Your task to perform on an android device: set default search engine in the chrome app Image 0: 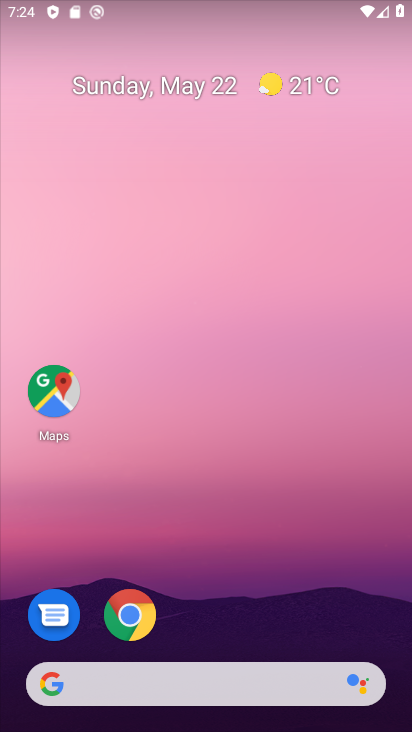
Step 0: drag from (257, 620) to (271, 304)
Your task to perform on an android device: set default search engine in the chrome app Image 1: 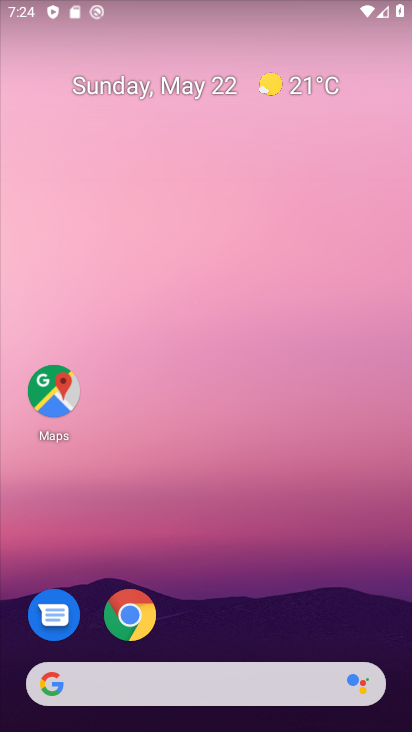
Step 1: drag from (266, 628) to (299, 122)
Your task to perform on an android device: set default search engine in the chrome app Image 2: 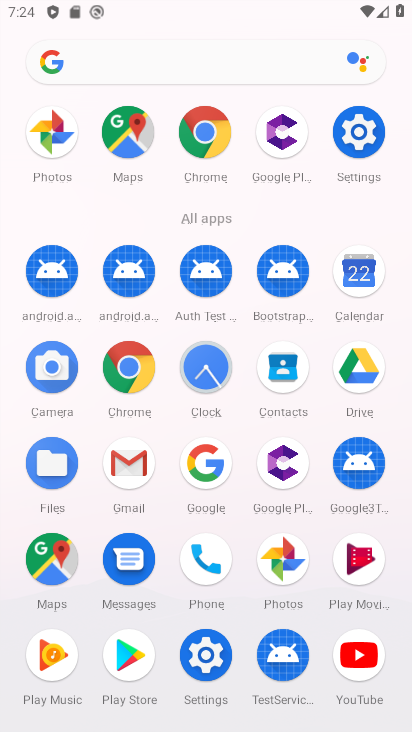
Step 2: click (196, 122)
Your task to perform on an android device: set default search engine in the chrome app Image 3: 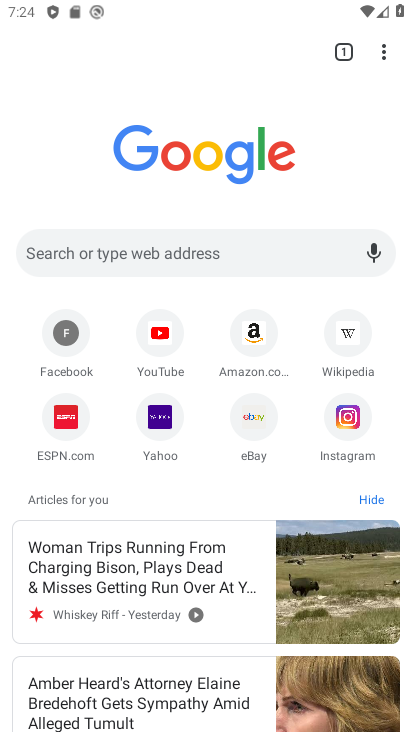
Step 3: click (383, 52)
Your task to perform on an android device: set default search engine in the chrome app Image 4: 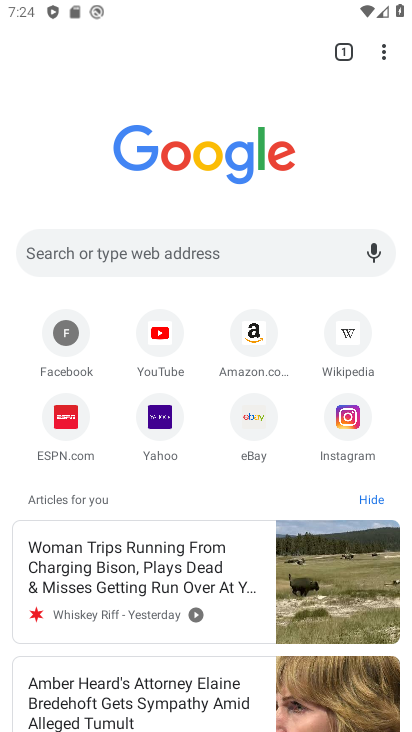
Step 4: click (383, 52)
Your task to perform on an android device: set default search engine in the chrome app Image 5: 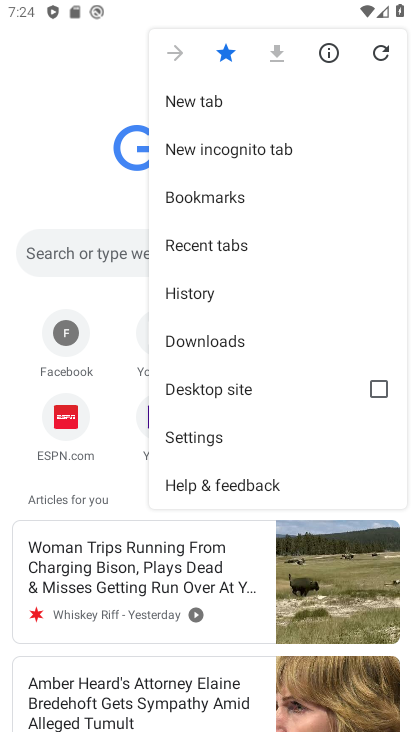
Step 5: click (223, 425)
Your task to perform on an android device: set default search engine in the chrome app Image 6: 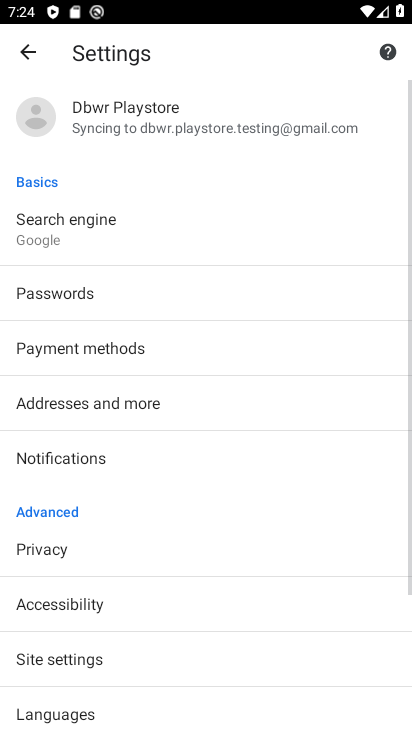
Step 6: click (79, 219)
Your task to perform on an android device: set default search engine in the chrome app Image 7: 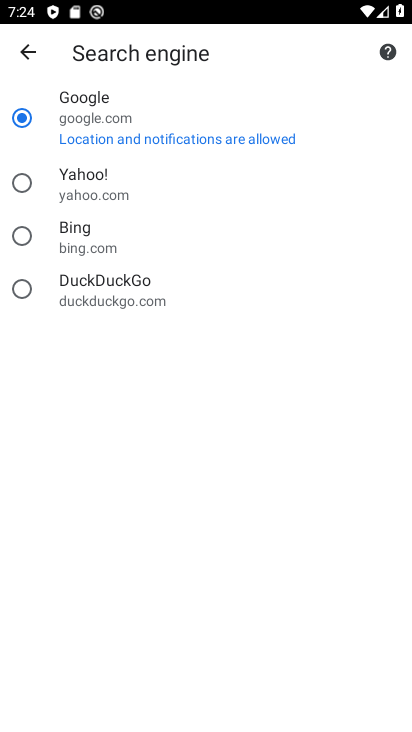
Step 7: click (139, 239)
Your task to perform on an android device: set default search engine in the chrome app Image 8: 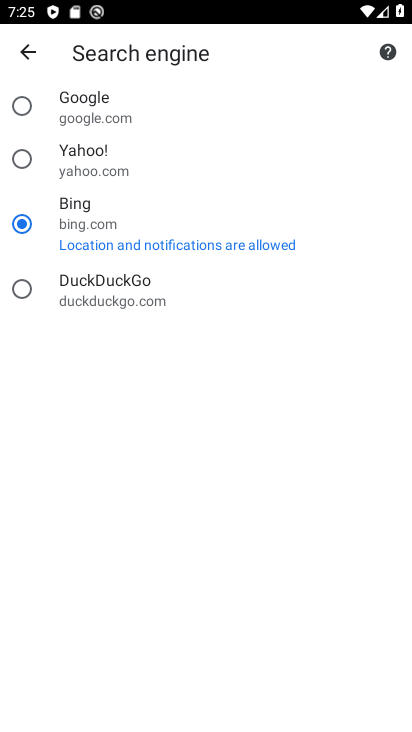
Step 8: task complete